Your task to perform on an android device: Open wifi settings Image 0: 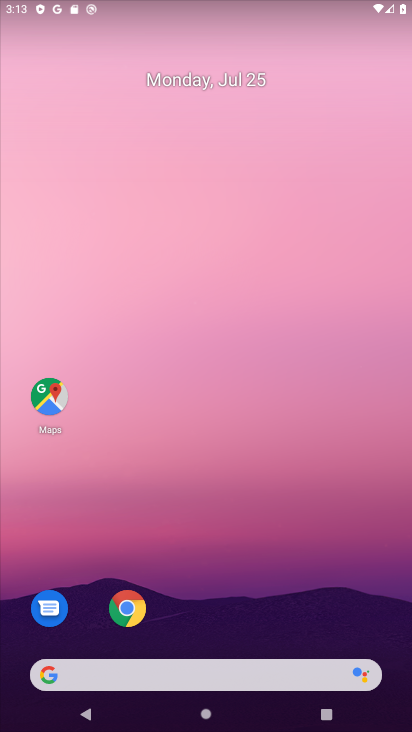
Step 0: drag from (259, 8) to (196, 357)
Your task to perform on an android device: Open wifi settings Image 1: 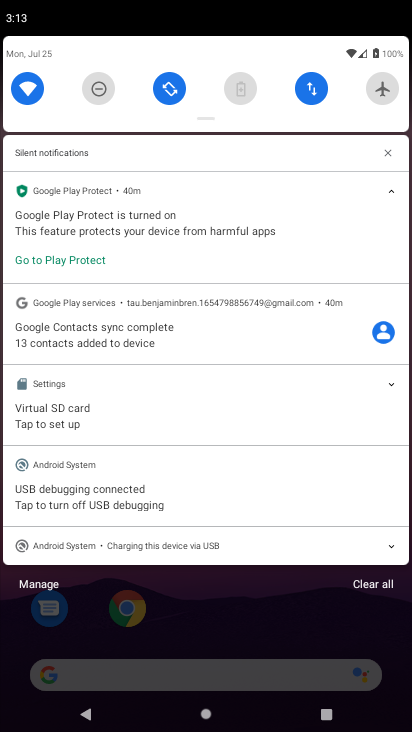
Step 1: click (34, 84)
Your task to perform on an android device: Open wifi settings Image 2: 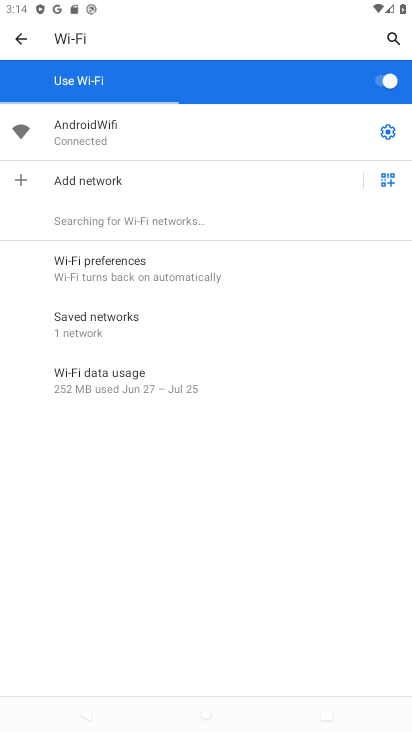
Step 2: task complete